Your task to perform on an android device: Turn off the flashlight Image 0: 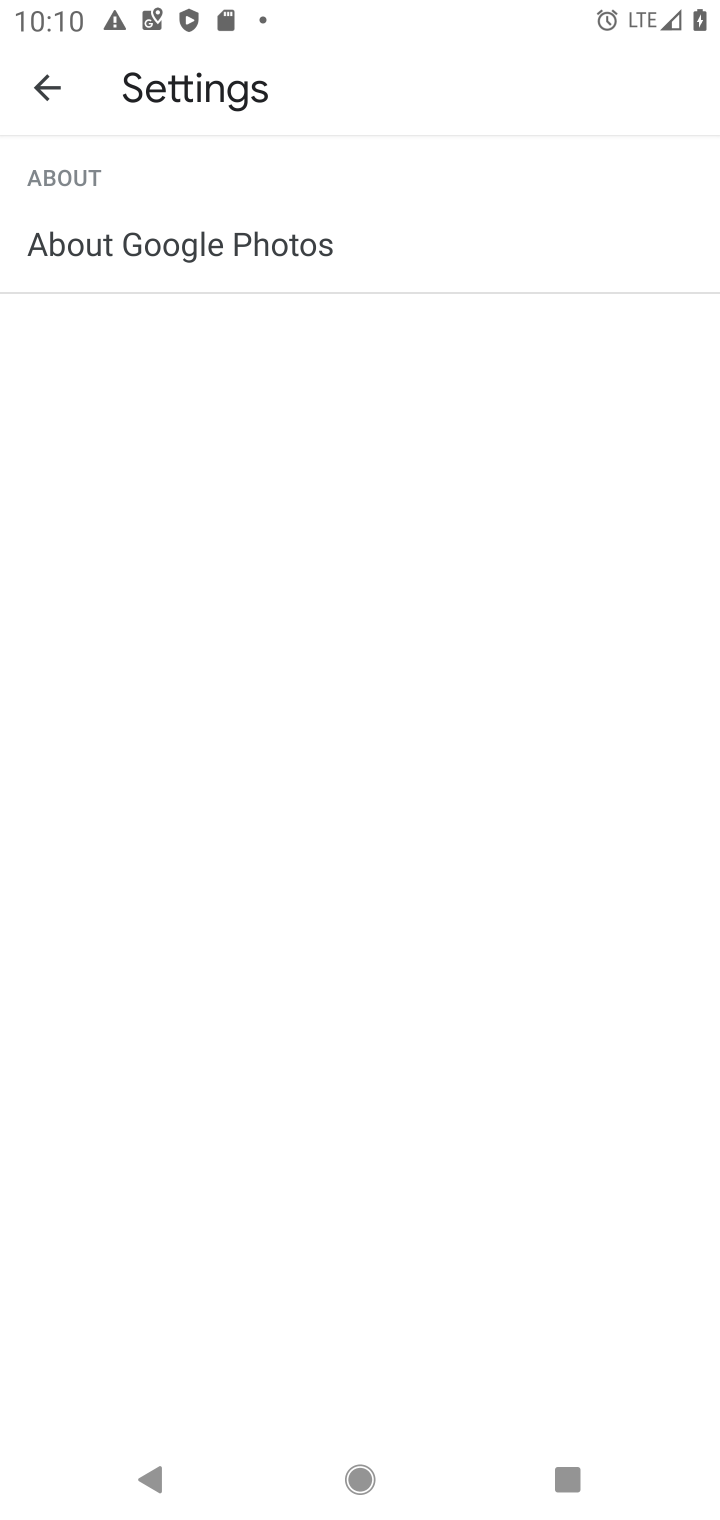
Step 0: press home button
Your task to perform on an android device: Turn off the flashlight Image 1: 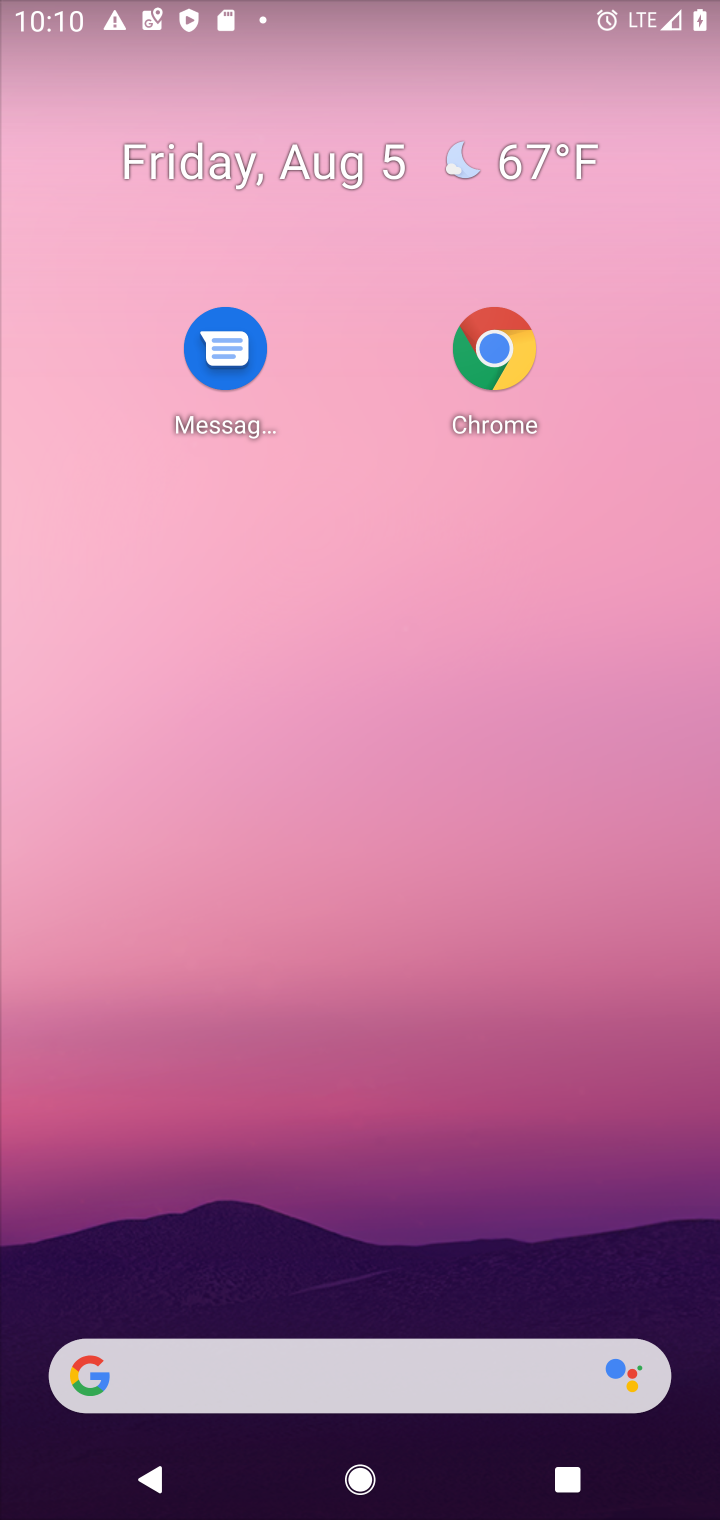
Step 1: drag from (441, 1420) to (385, 408)
Your task to perform on an android device: Turn off the flashlight Image 2: 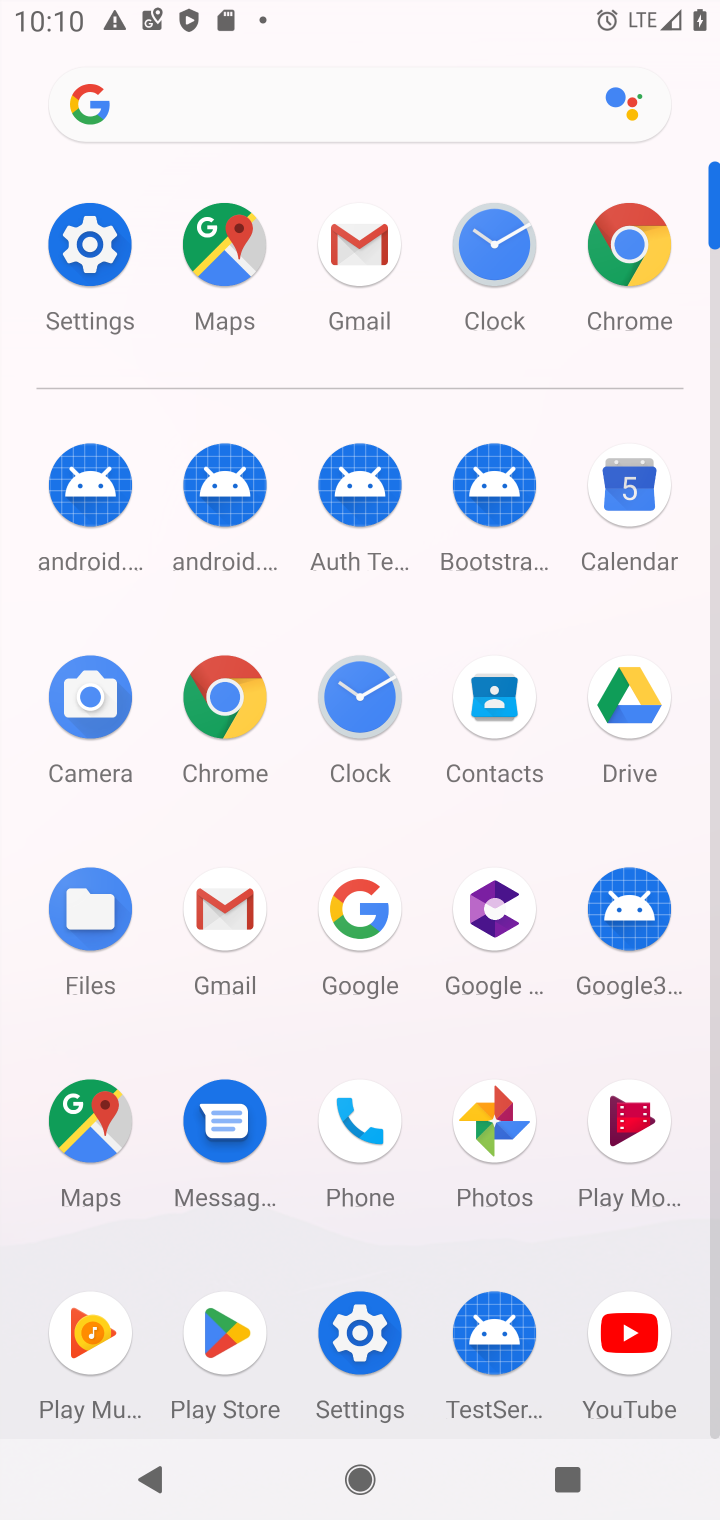
Step 2: click (132, 240)
Your task to perform on an android device: Turn off the flashlight Image 3: 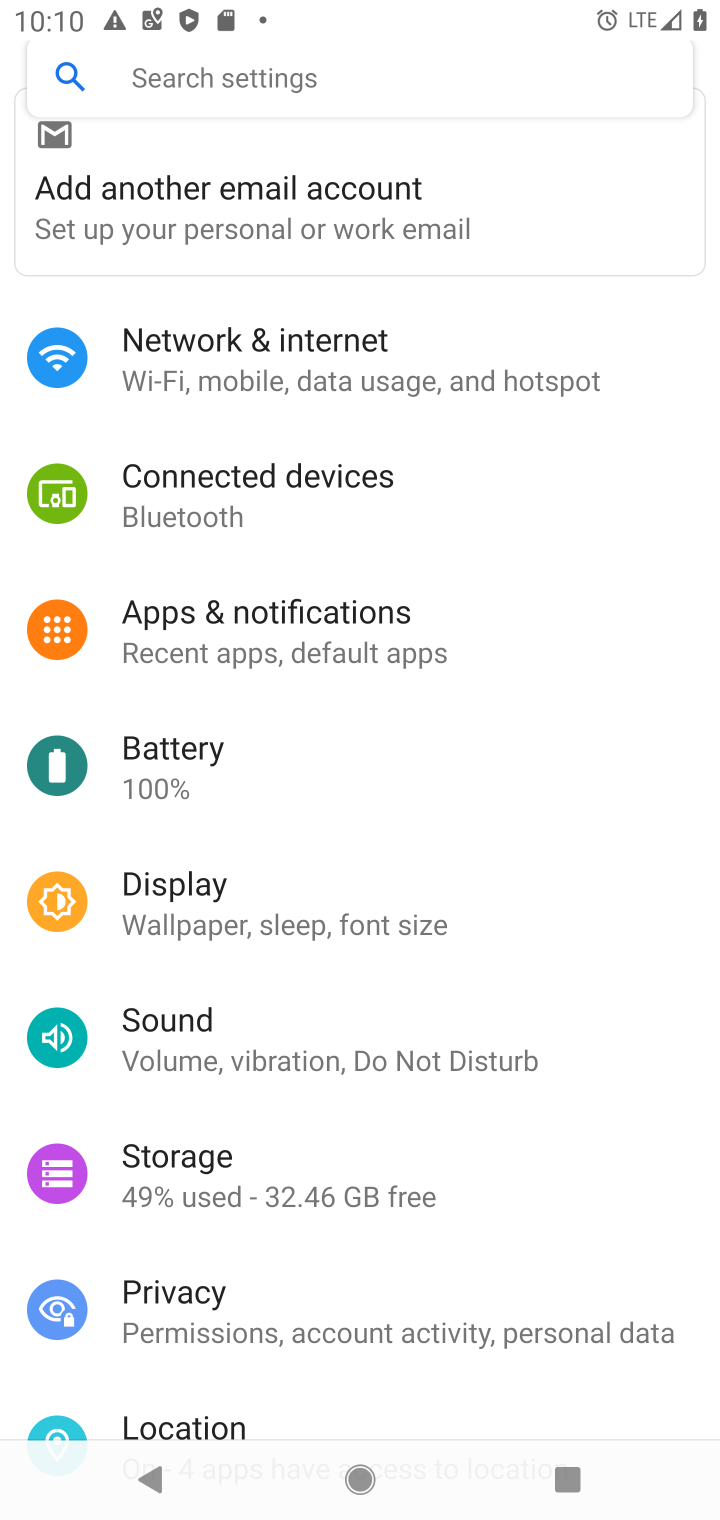
Step 3: click (223, 84)
Your task to perform on an android device: Turn off the flashlight Image 4: 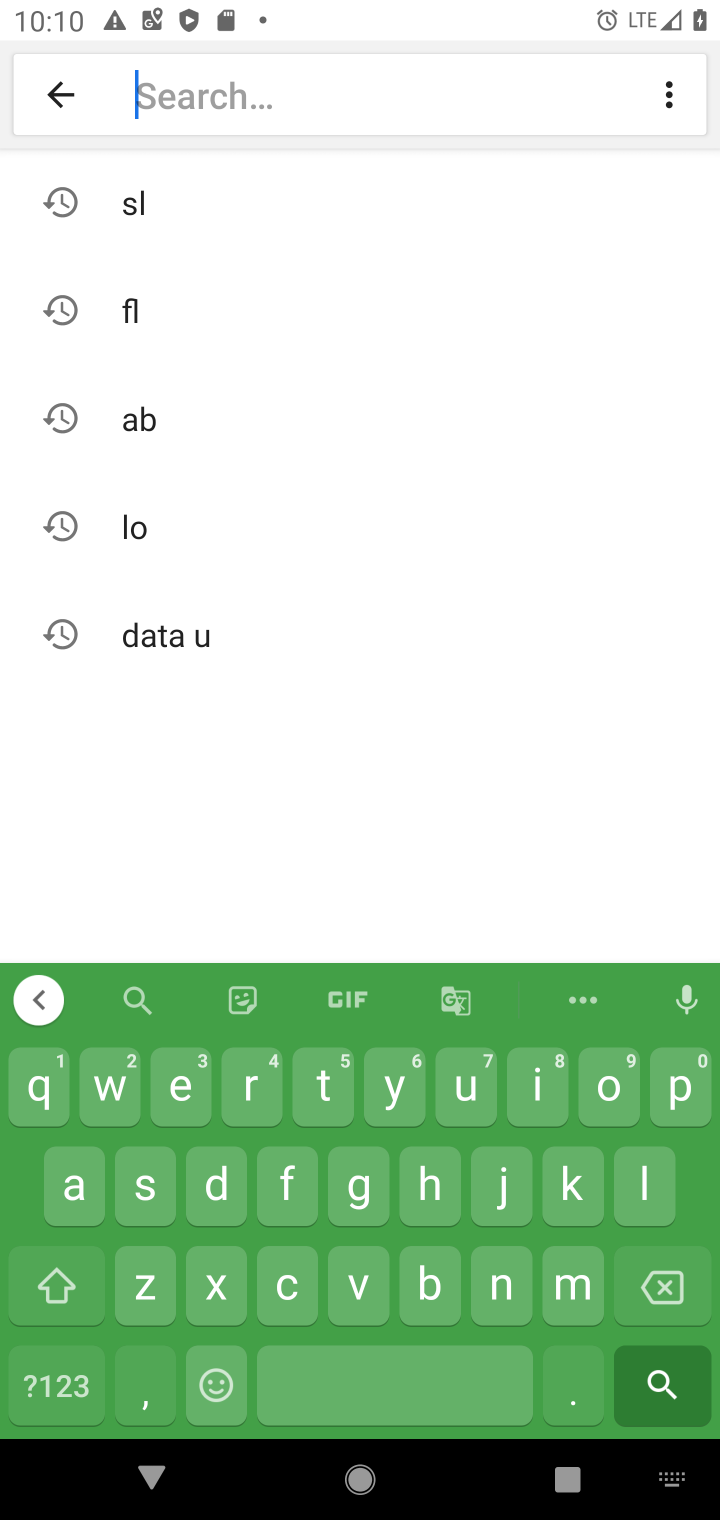
Step 4: click (297, 1189)
Your task to perform on an android device: Turn off the flashlight Image 5: 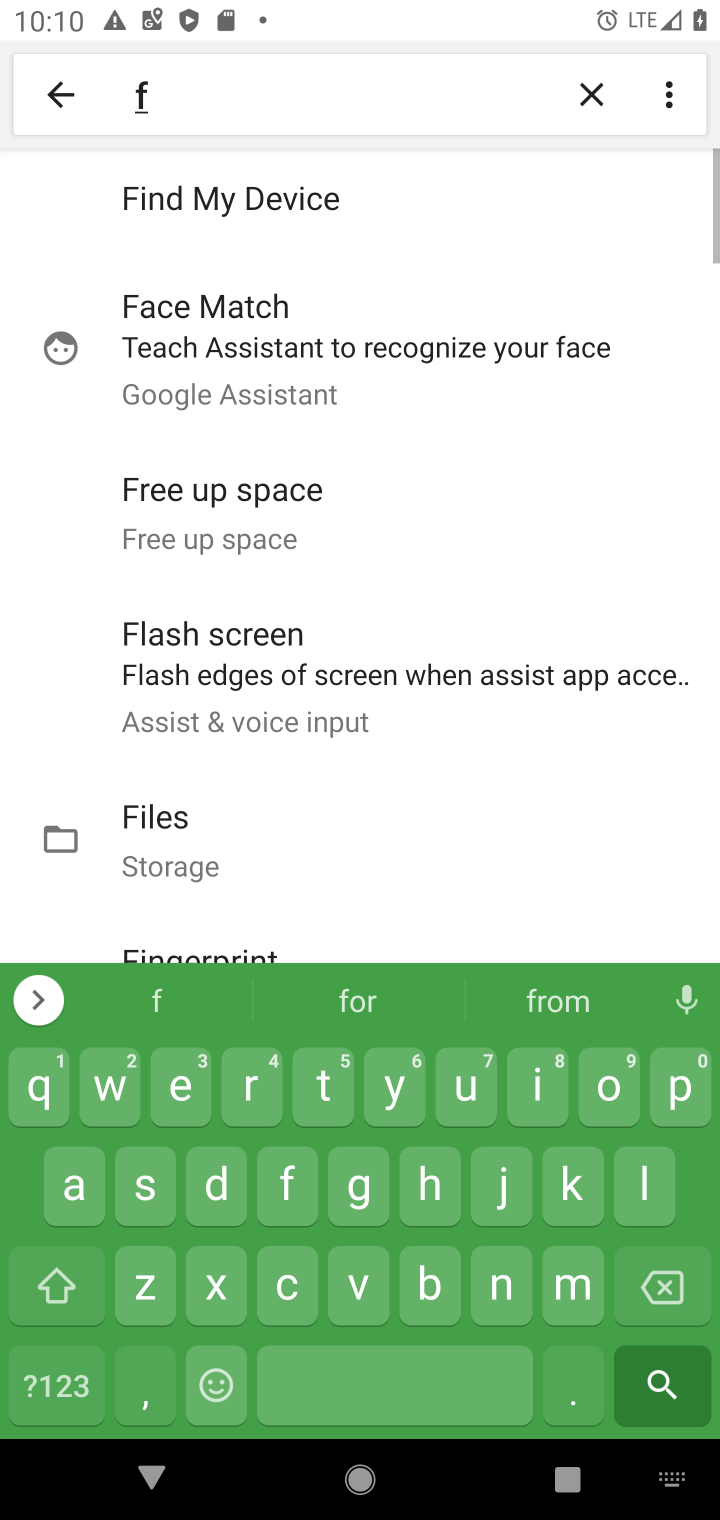
Step 5: click (646, 1181)
Your task to perform on an android device: Turn off the flashlight Image 6: 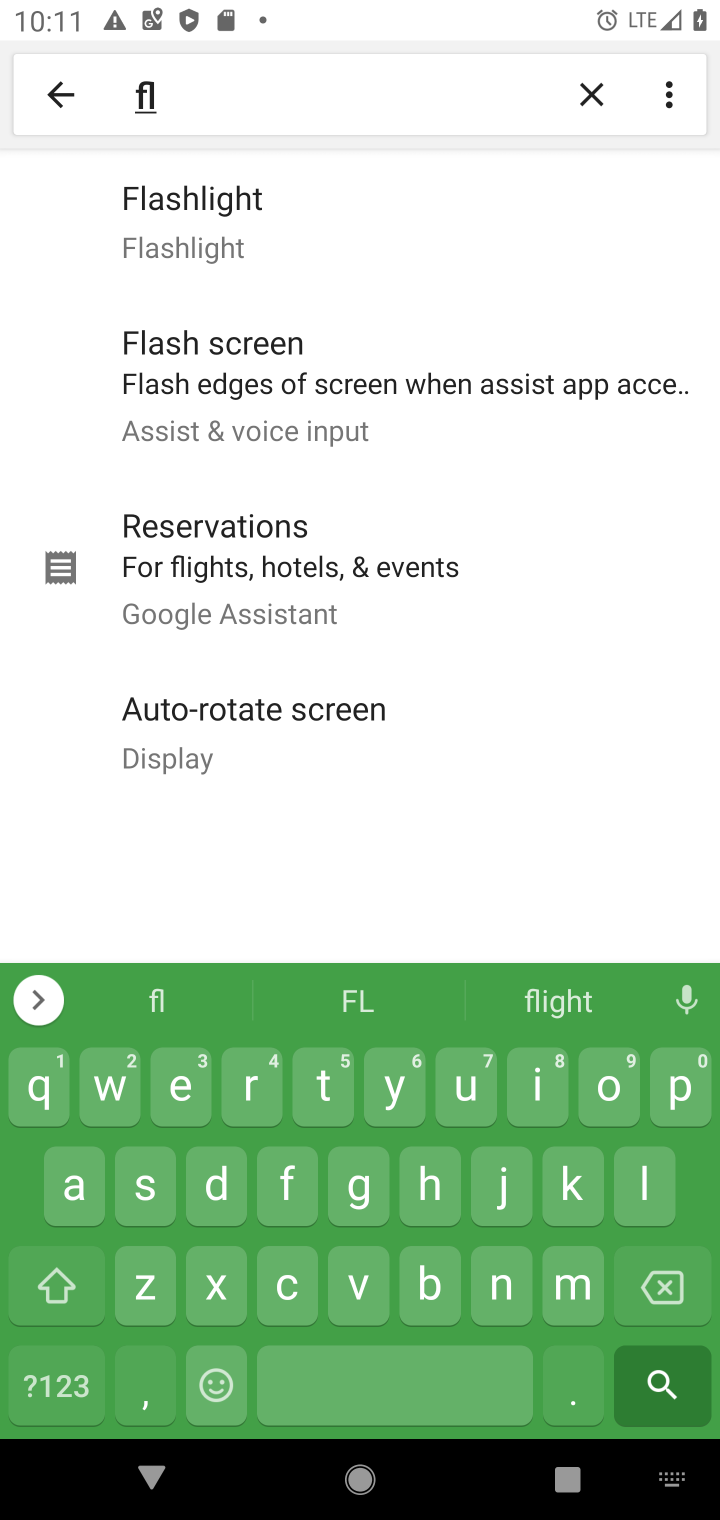
Step 6: click (243, 215)
Your task to perform on an android device: Turn off the flashlight Image 7: 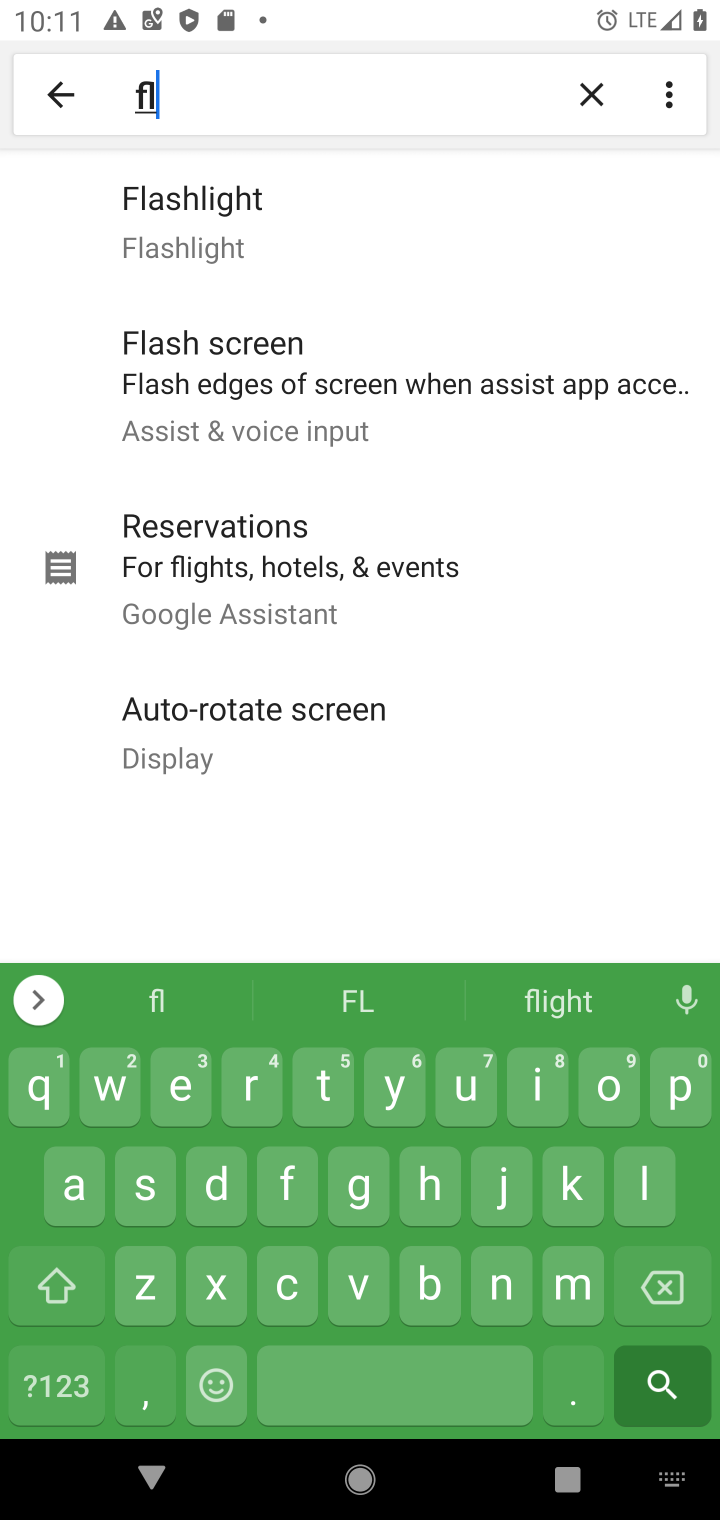
Step 7: click (243, 215)
Your task to perform on an android device: Turn off the flashlight Image 8: 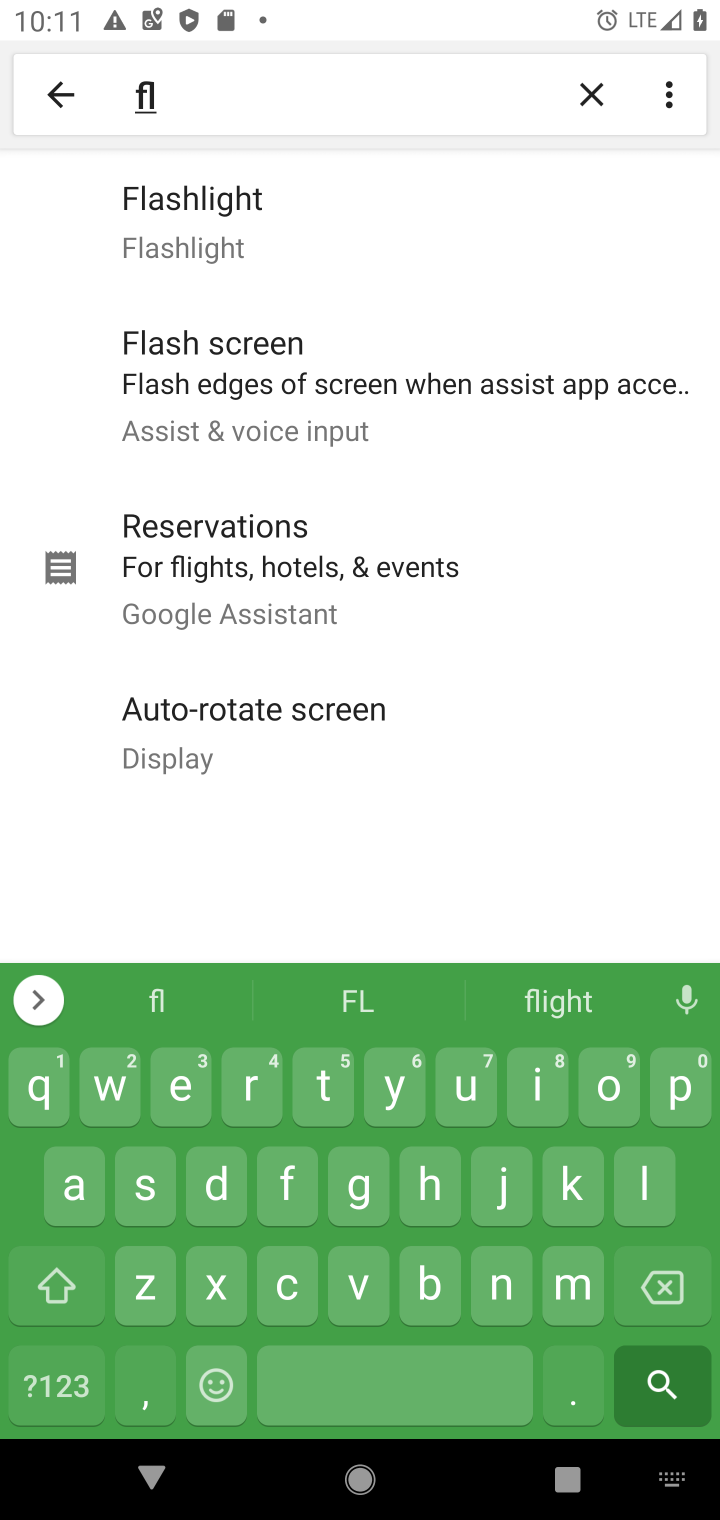
Step 8: task complete